Your task to perform on an android device: change the clock style Image 0: 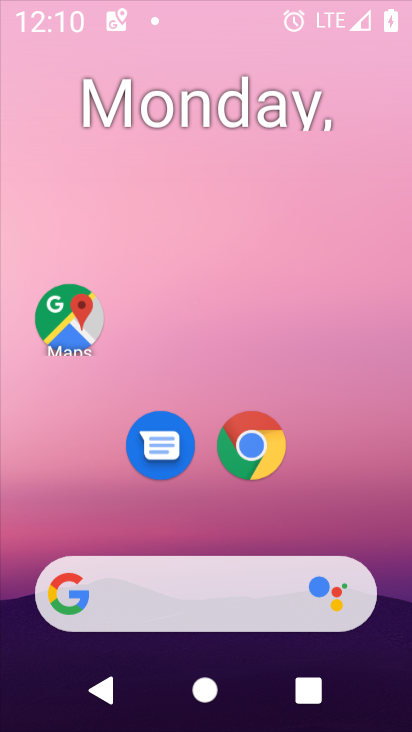
Step 0: click (249, 52)
Your task to perform on an android device: change the clock style Image 1: 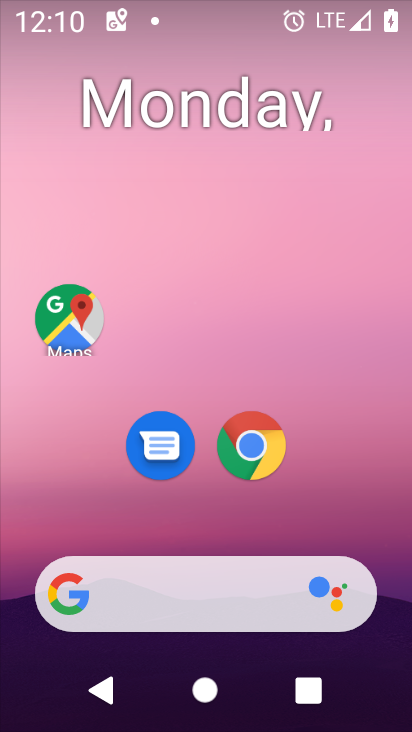
Step 1: drag from (205, 514) to (260, 59)
Your task to perform on an android device: change the clock style Image 2: 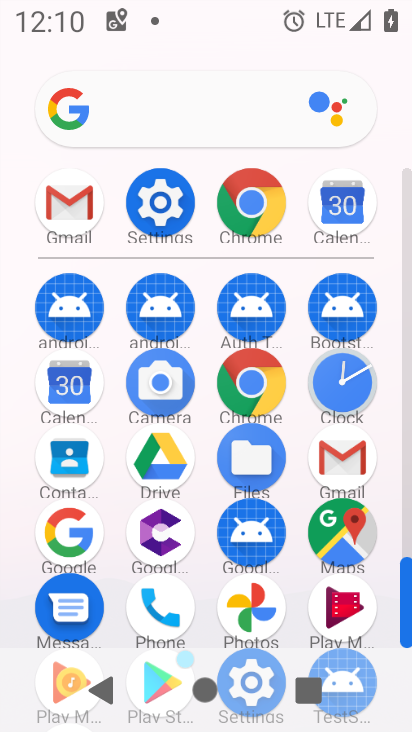
Step 2: click (326, 367)
Your task to perform on an android device: change the clock style Image 3: 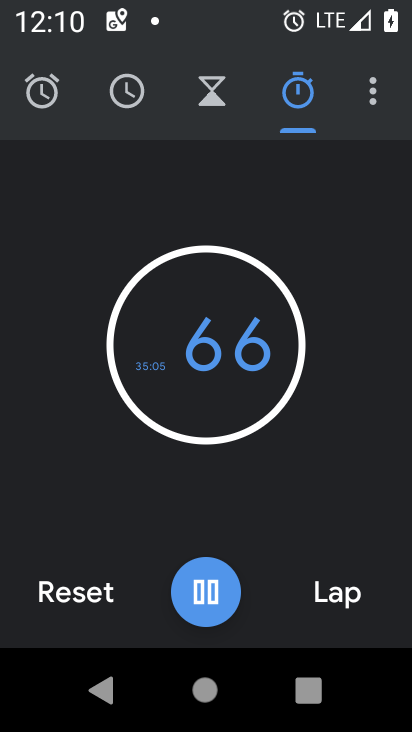
Step 3: click (376, 103)
Your task to perform on an android device: change the clock style Image 4: 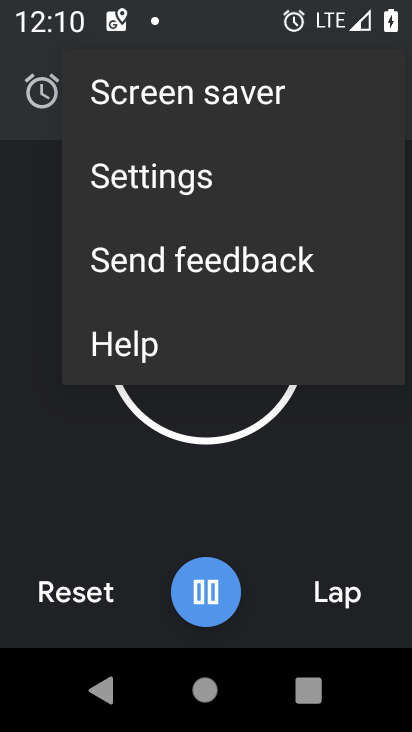
Step 4: click (172, 170)
Your task to perform on an android device: change the clock style Image 5: 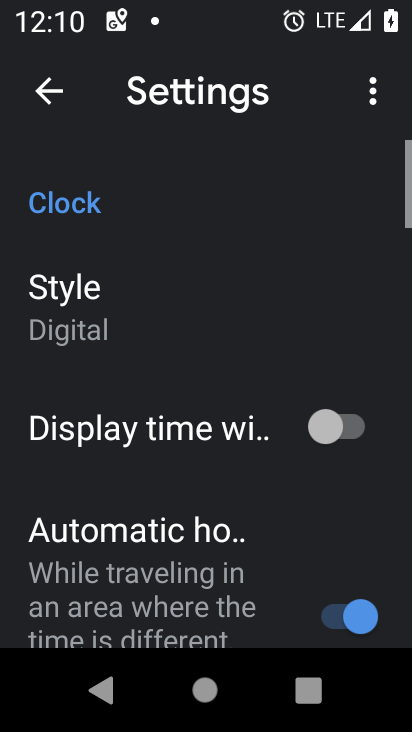
Step 5: click (90, 311)
Your task to perform on an android device: change the clock style Image 6: 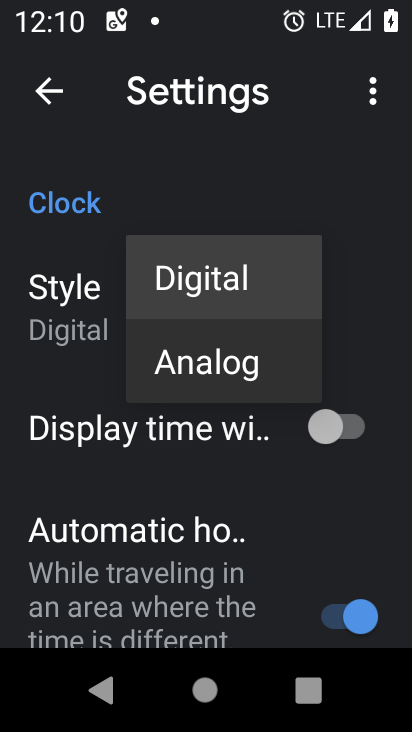
Step 6: click (245, 377)
Your task to perform on an android device: change the clock style Image 7: 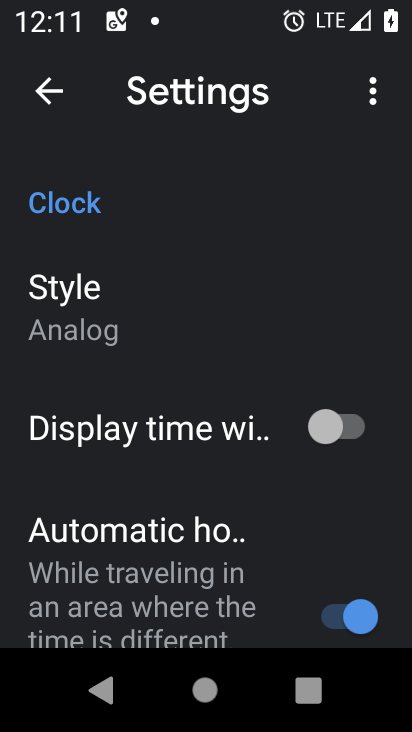
Step 7: task complete